Your task to perform on an android device: Search for "razer kraken" on walmart, select the first entry, and add it to the cart. Image 0: 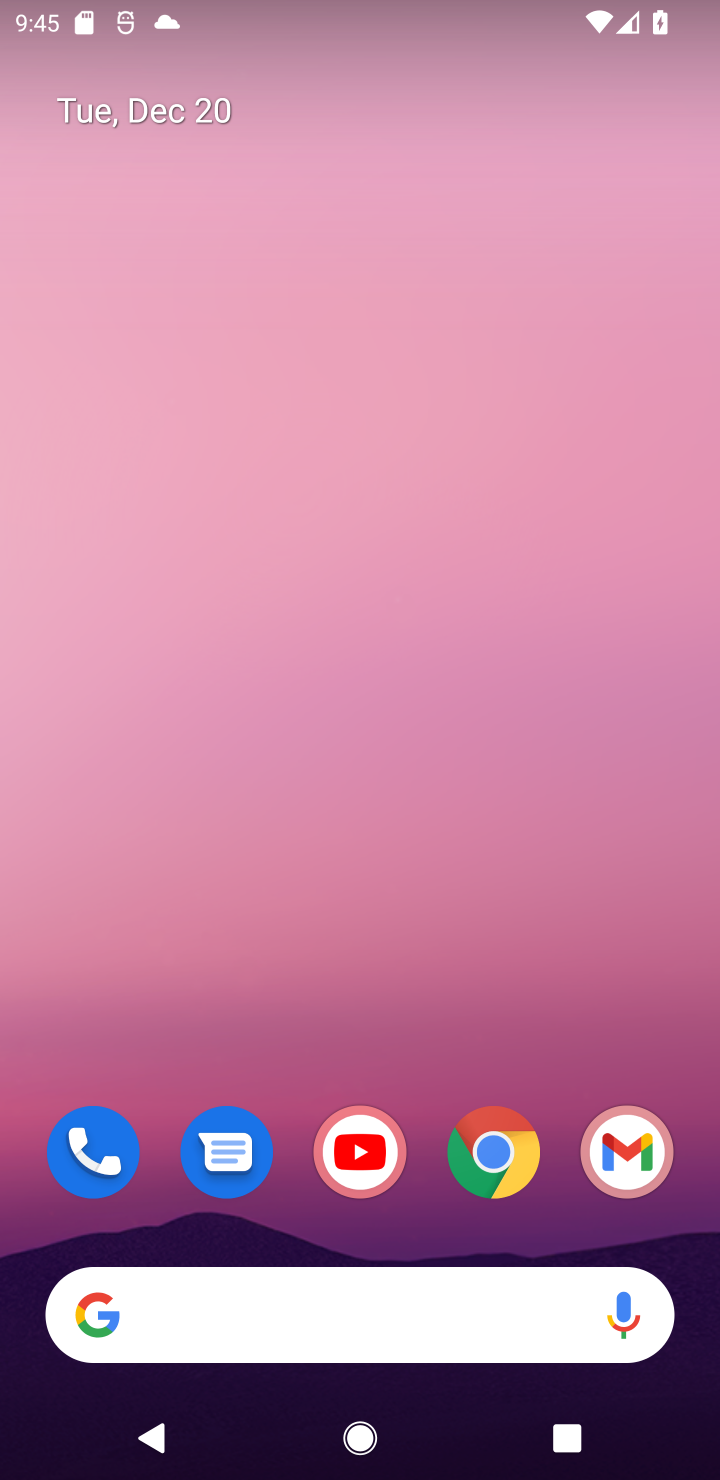
Step 0: click (491, 1146)
Your task to perform on an android device: Search for "razer kraken" on walmart, select the first entry, and add it to the cart. Image 1: 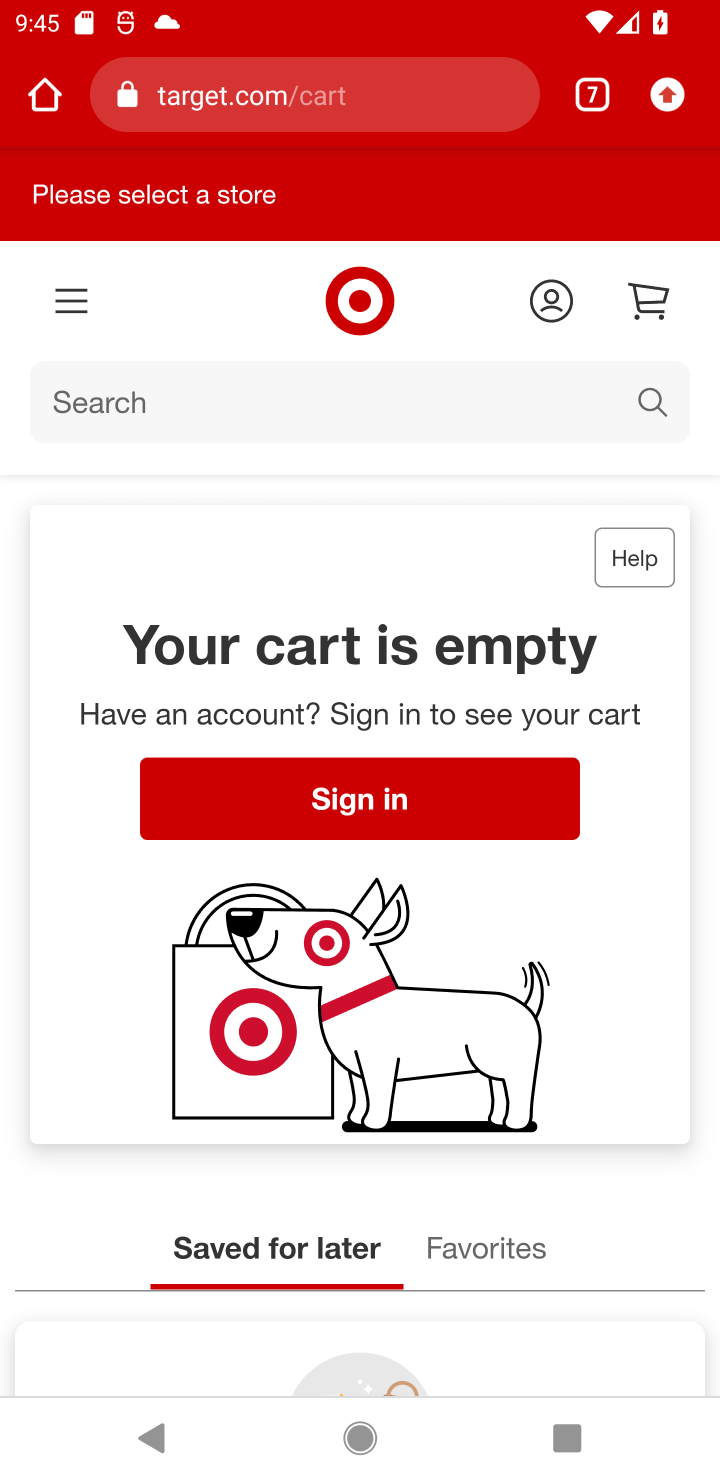
Step 1: click (598, 83)
Your task to perform on an android device: Search for "razer kraken" on walmart, select the first entry, and add it to the cart. Image 2: 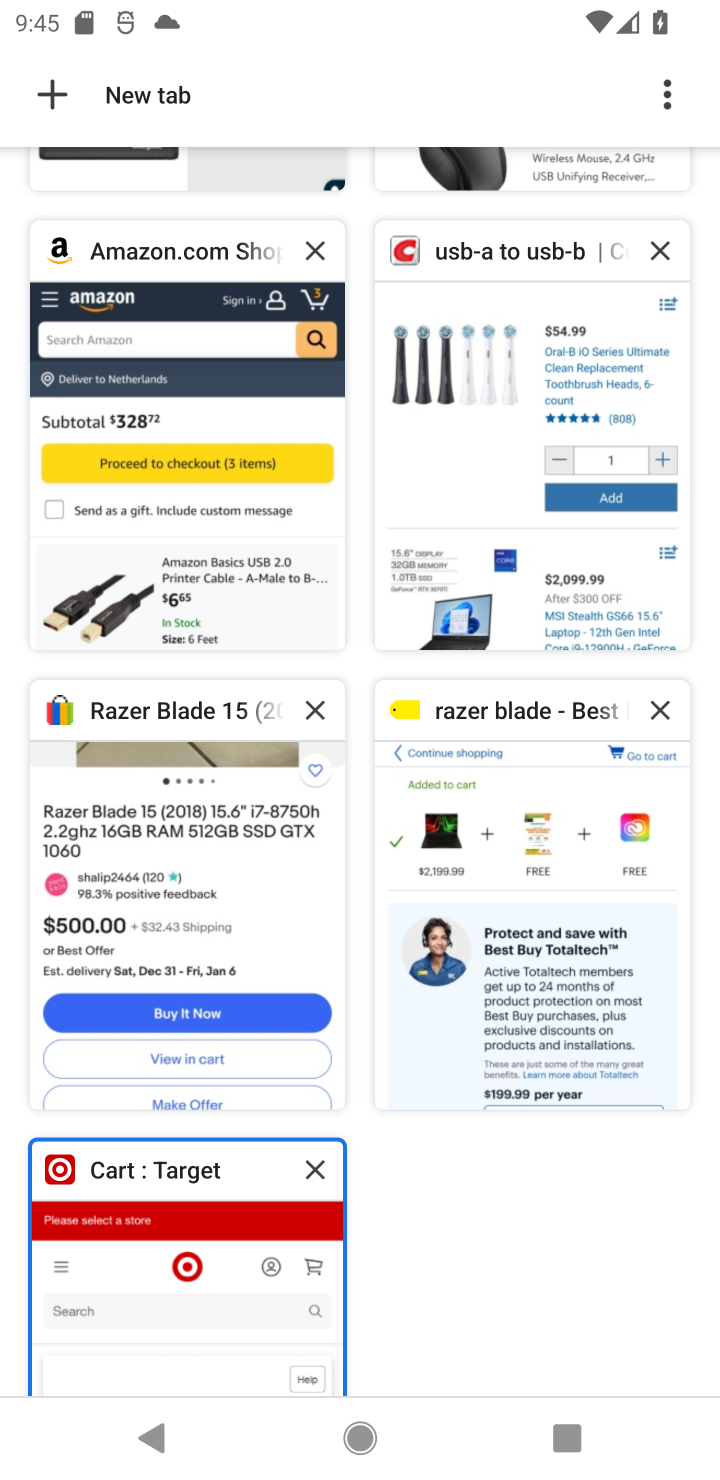
Step 2: drag from (560, 443) to (424, 1353)
Your task to perform on an android device: Search for "razer kraken" on walmart, select the first entry, and add it to the cart. Image 3: 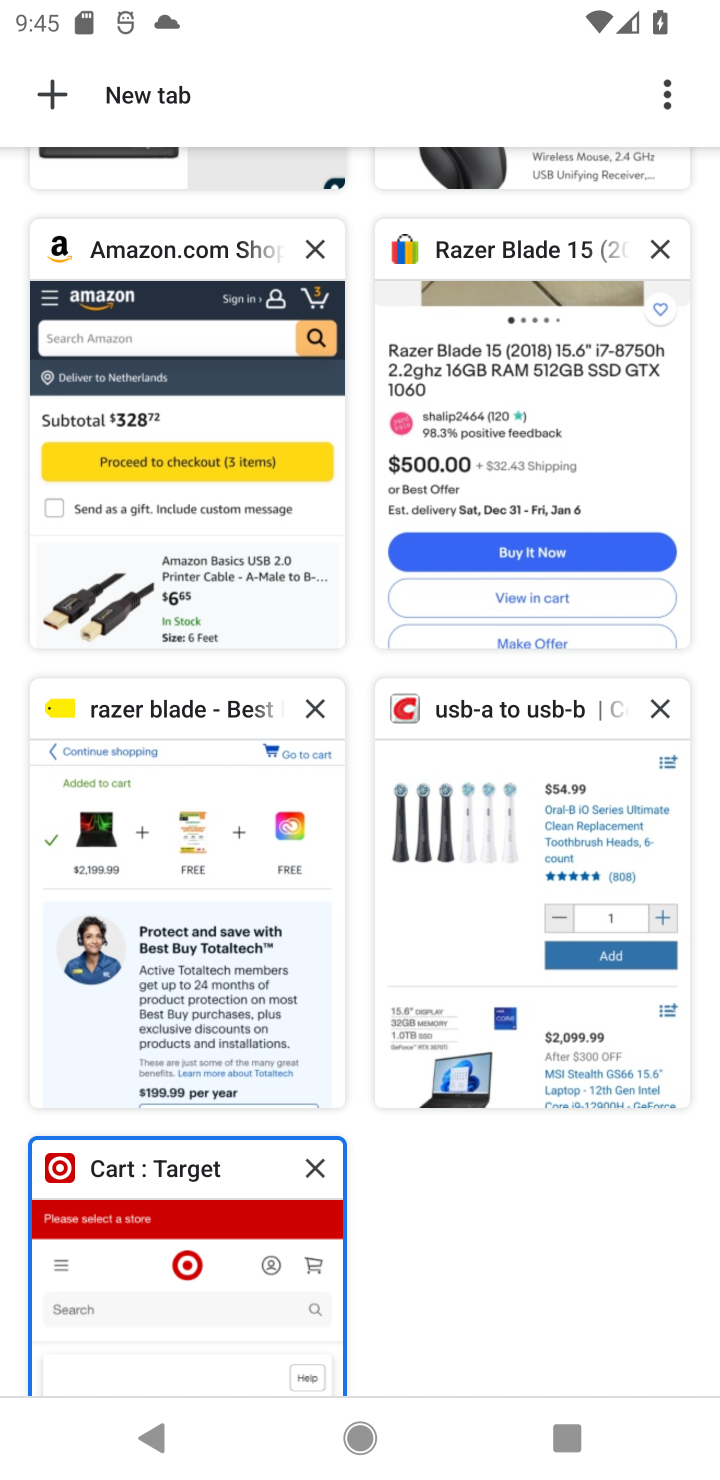
Step 3: drag from (514, 365) to (414, 1089)
Your task to perform on an android device: Search for "razer kraken" on walmart, select the first entry, and add it to the cart. Image 4: 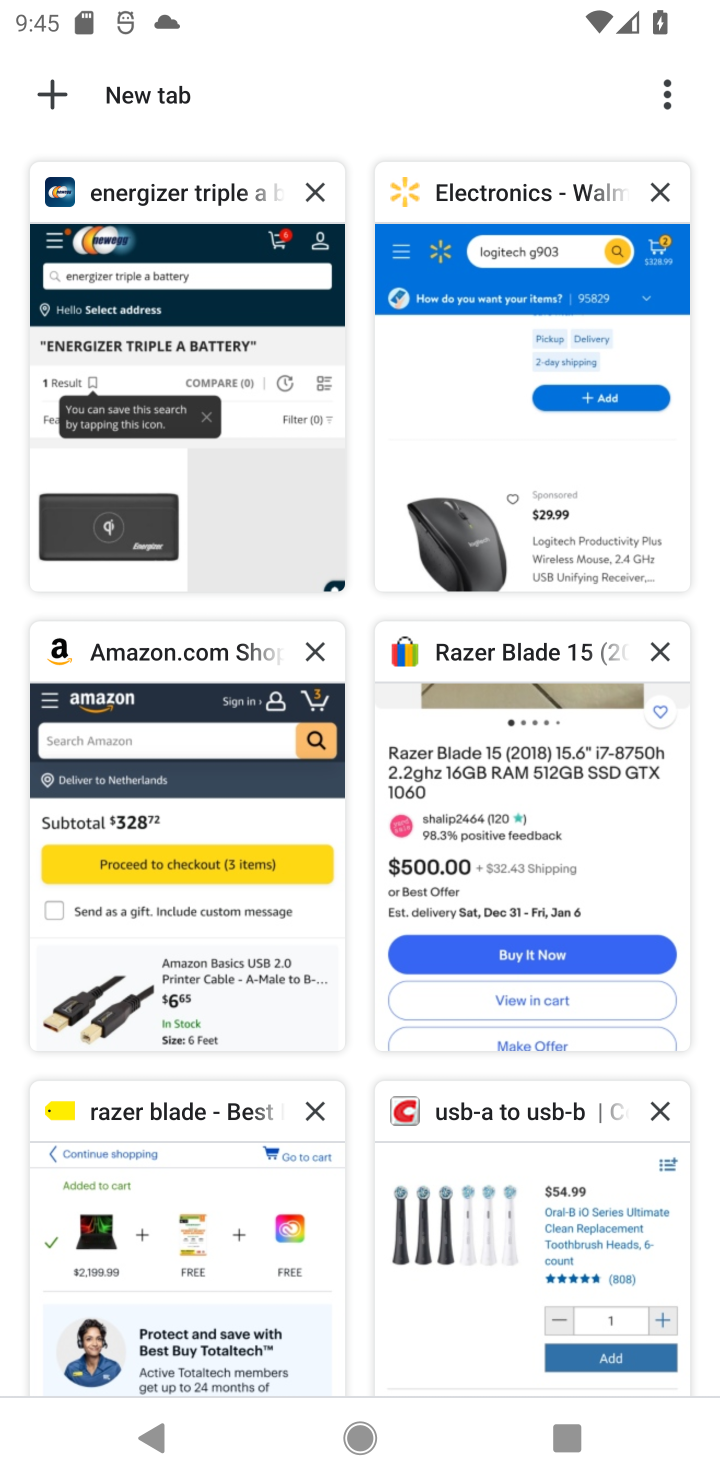
Step 4: click (469, 417)
Your task to perform on an android device: Search for "razer kraken" on walmart, select the first entry, and add it to the cart. Image 5: 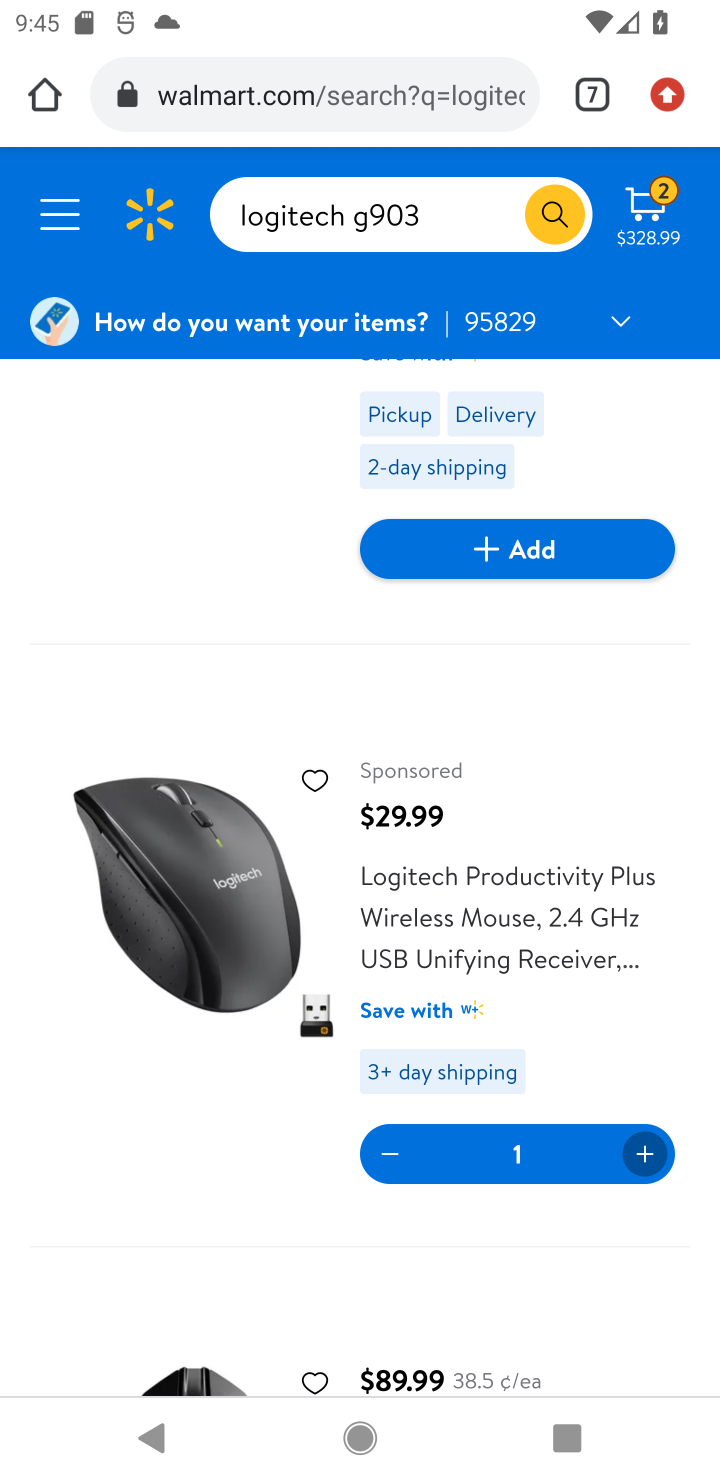
Step 5: click (411, 189)
Your task to perform on an android device: Search for "razer kraken" on walmart, select the first entry, and add it to the cart. Image 6: 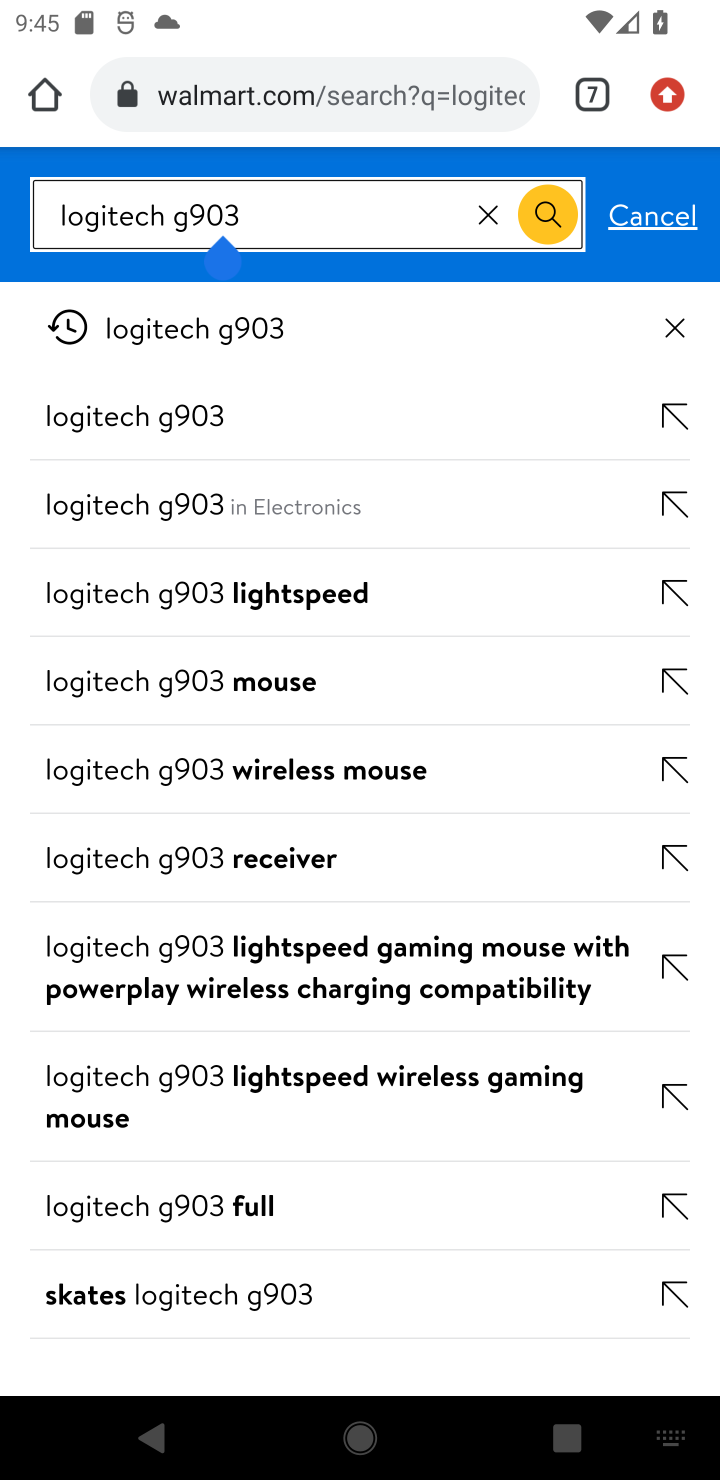
Step 6: click (496, 209)
Your task to perform on an android device: Search for "razer kraken" on walmart, select the first entry, and add it to the cart. Image 7: 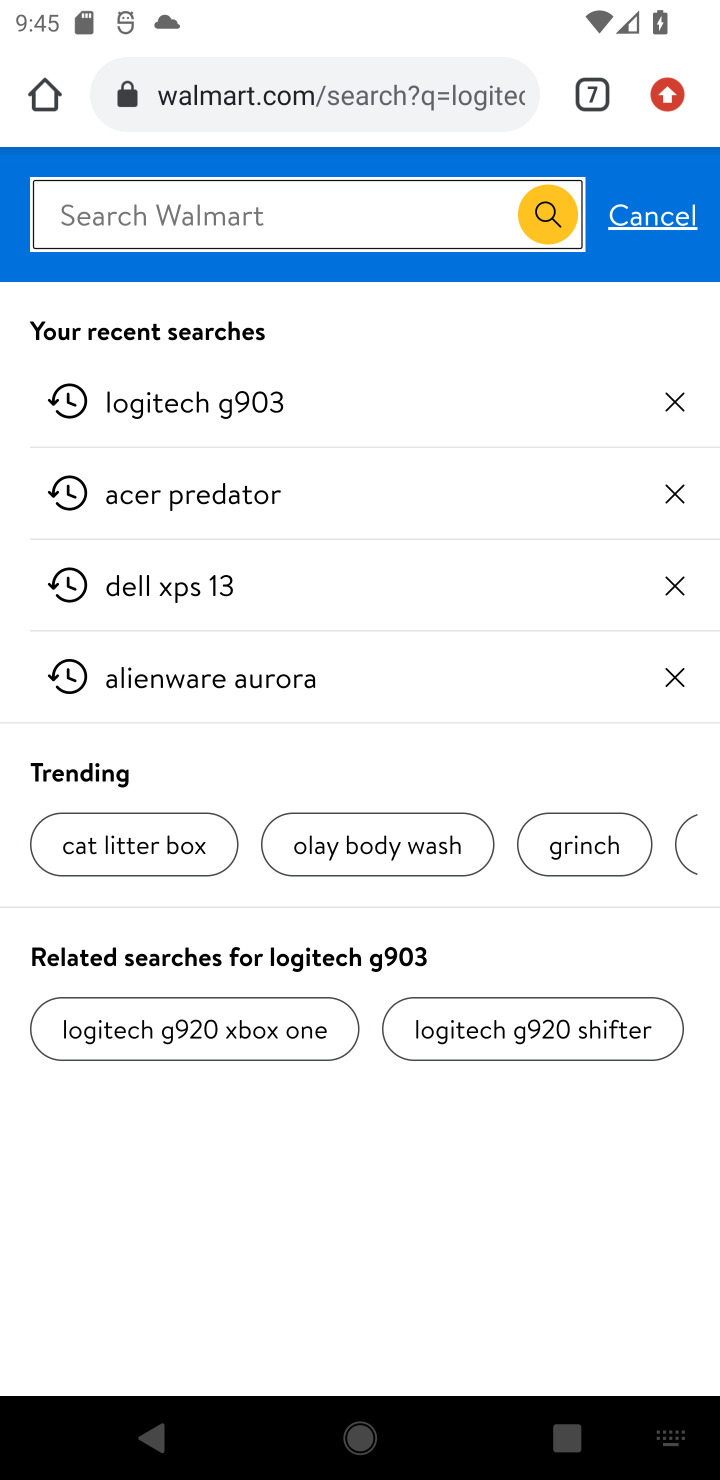
Step 7: type "razer kraken"
Your task to perform on an android device: Search for "razer kraken" on walmart, select the first entry, and add it to the cart. Image 8: 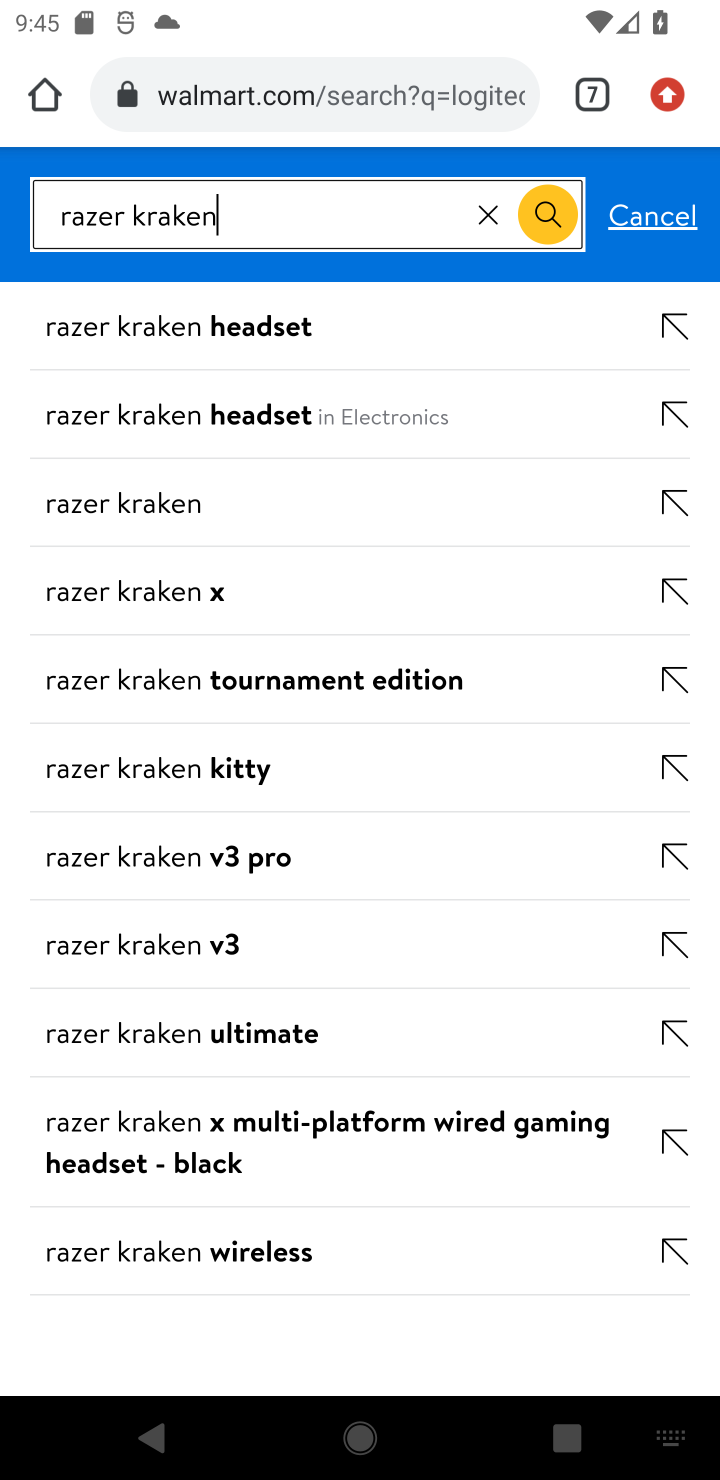
Step 8: click (158, 499)
Your task to perform on an android device: Search for "razer kraken" on walmart, select the first entry, and add it to the cart. Image 9: 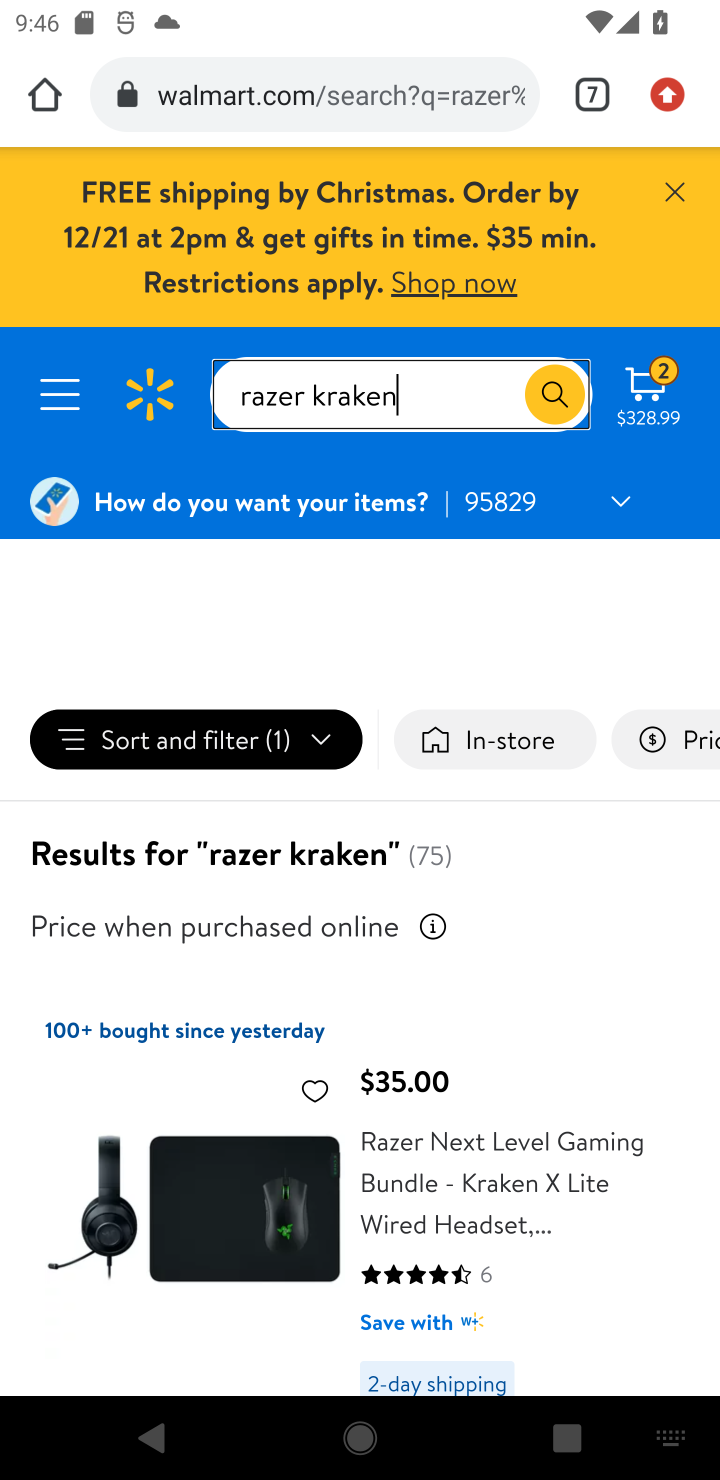
Step 9: drag from (525, 1278) to (491, 766)
Your task to perform on an android device: Search for "razer kraken" on walmart, select the first entry, and add it to the cart. Image 10: 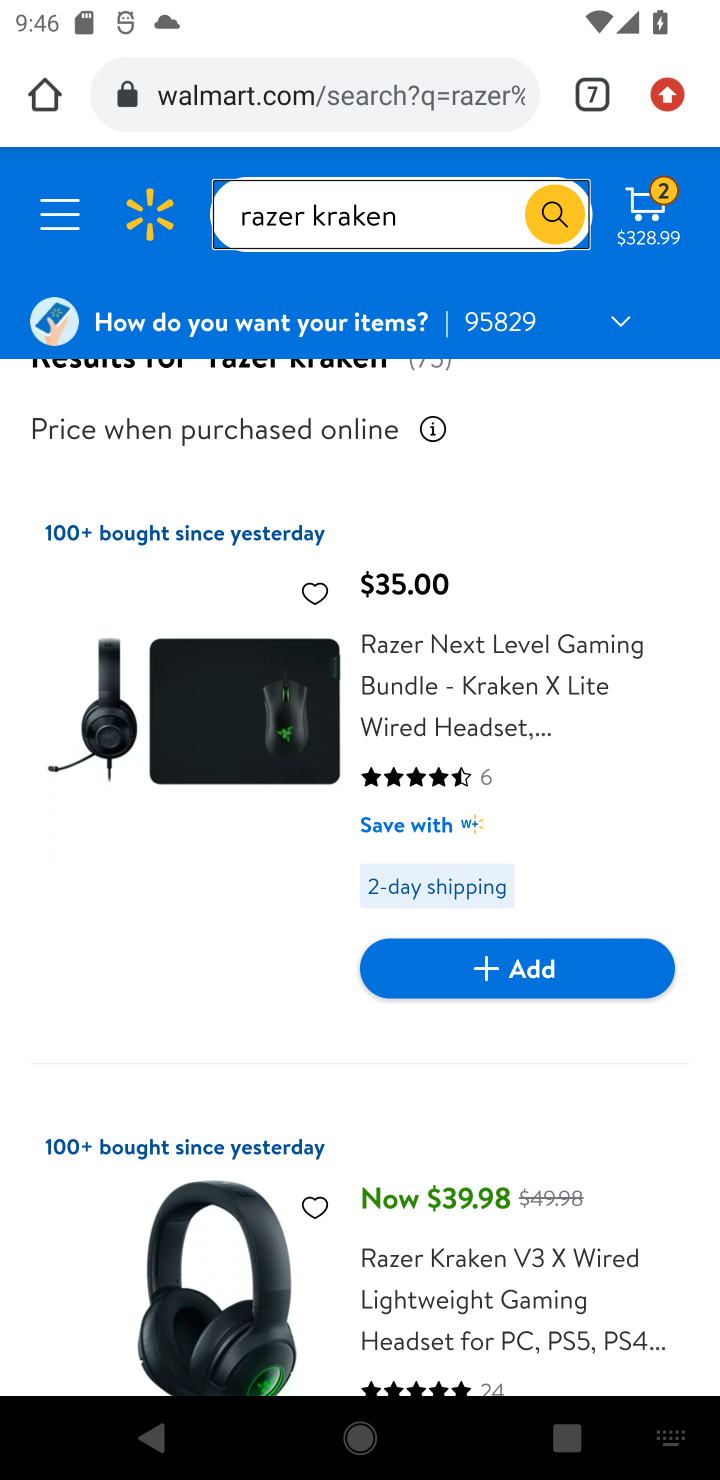
Step 10: click (575, 967)
Your task to perform on an android device: Search for "razer kraken" on walmart, select the first entry, and add it to the cart. Image 11: 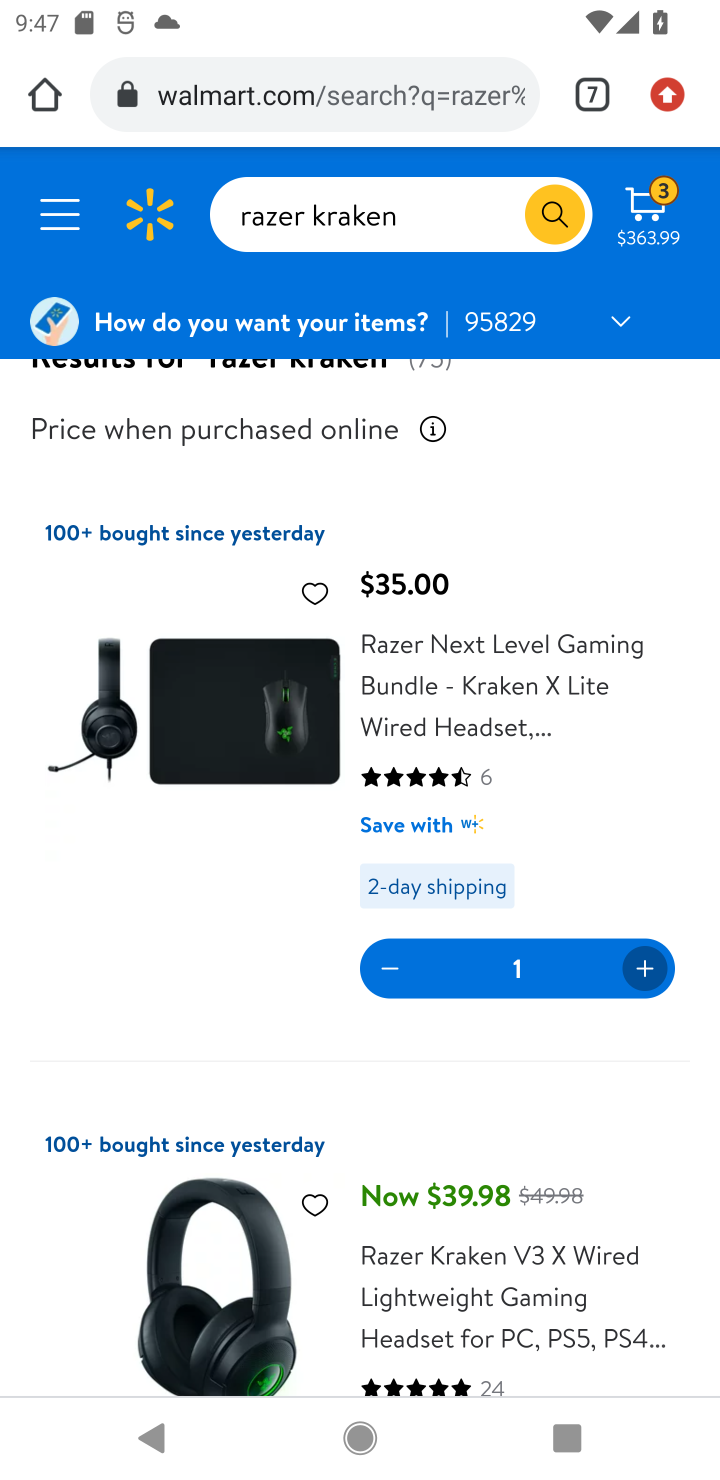
Step 11: task complete